Your task to perform on an android device: turn off priority inbox in the gmail app Image 0: 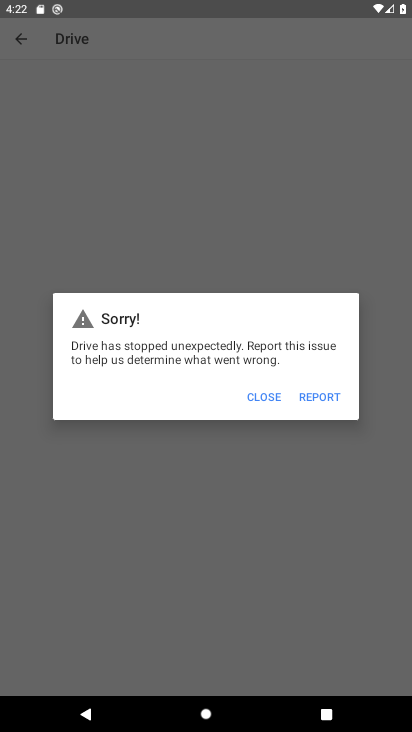
Step 0: press home button
Your task to perform on an android device: turn off priority inbox in the gmail app Image 1: 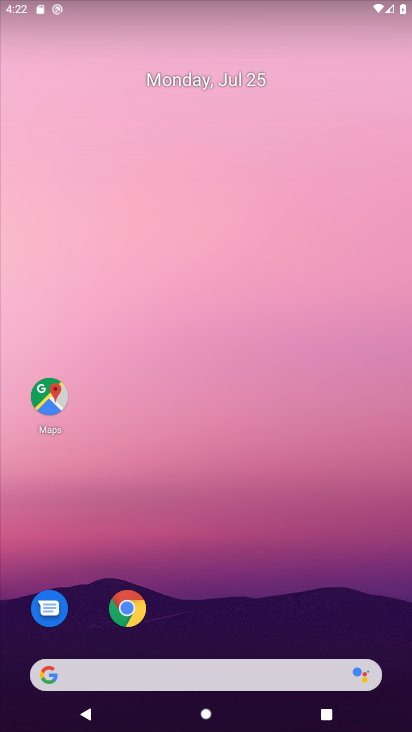
Step 1: drag from (235, 620) to (254, 160)
Your task to perform on an android device: turn off priority inbox in the gmail app Image 2: 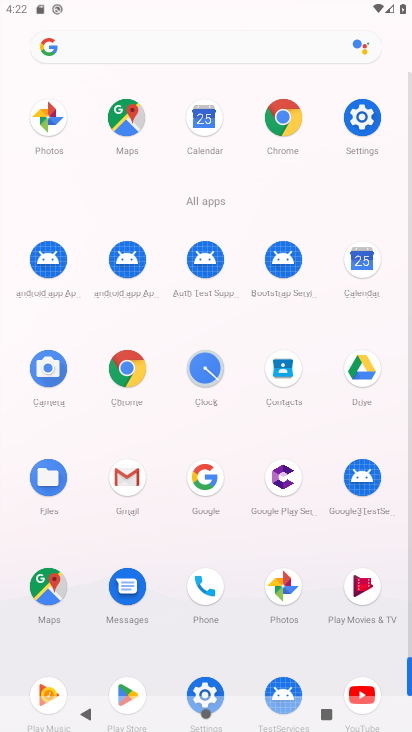
Step 2: click (130, 491)
Your task to perform on an android device: turn off priority inbox in the gmail app Image 3: 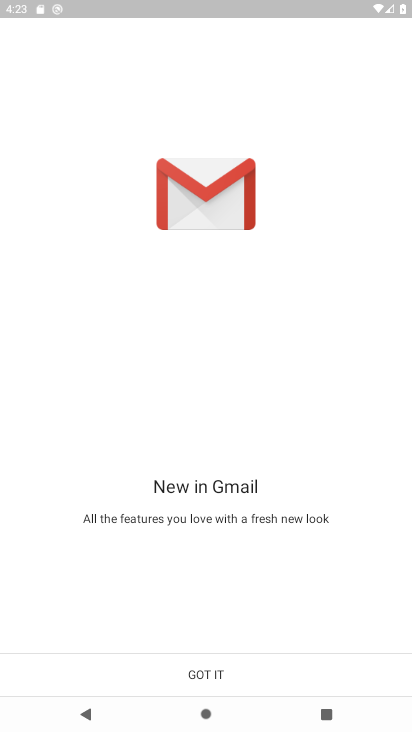
Step 3: click (242, 669)
Your task to perform on an android device: turn off priority inbox in the gmail app Image 4: 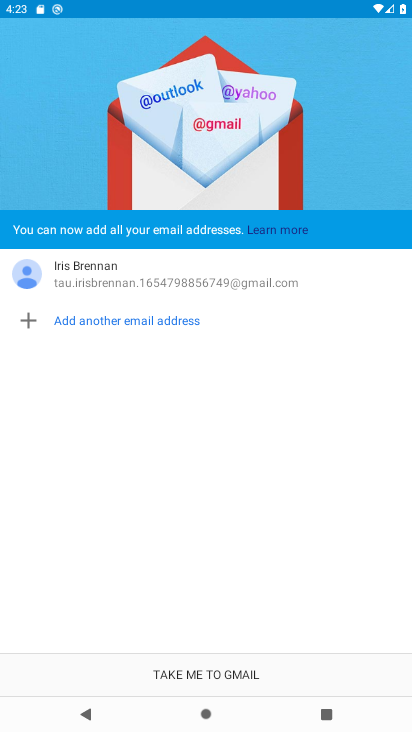
Step 4: click (243, 674)
Your task to perform on an android device: turn off priority inbox in the gmail app Image 5: 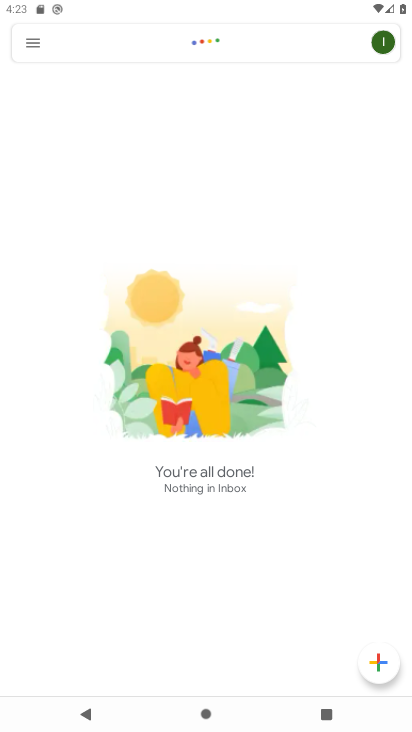
Step 5: click (40, 41)
Your task to perform on an android device: turn off priority inbox in the gmail app Image 6: 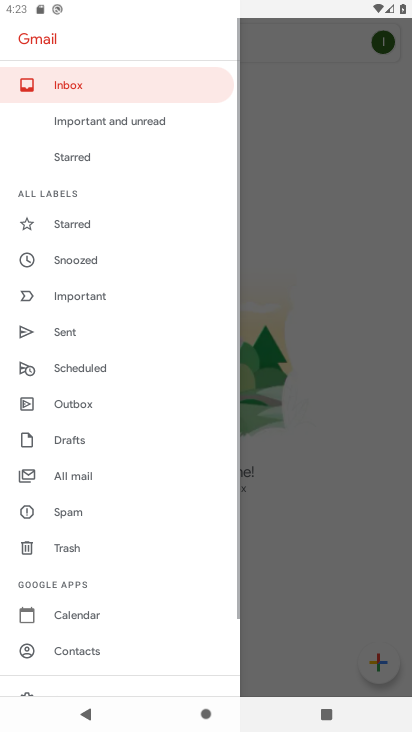
Step 6: drag from (93, 629) to (90, 212)
Your task to perform on an android device: turn off priority inbox in the gmail app Image 7: 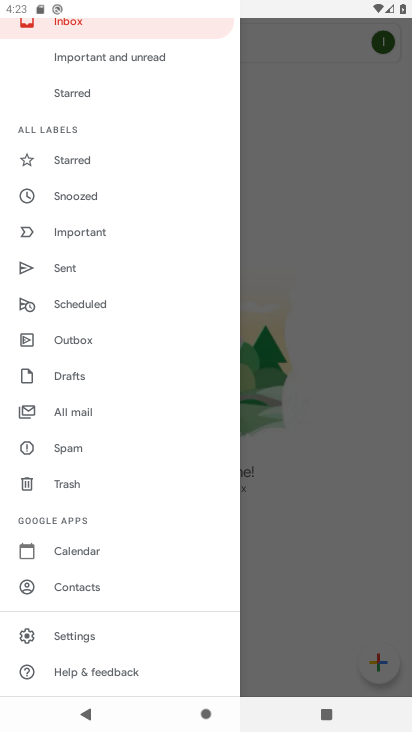
Step 7: click (81, 635)
Your task to perform on an android device: turn off priority inbox in the gmail app Image 8: 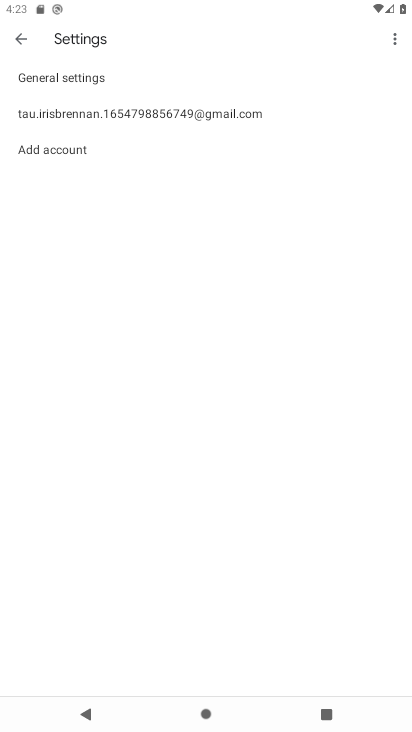
Step 8: click (117, 114)
Your task to perform on an android device: turn off priority inbox in the gmail app Image 9: 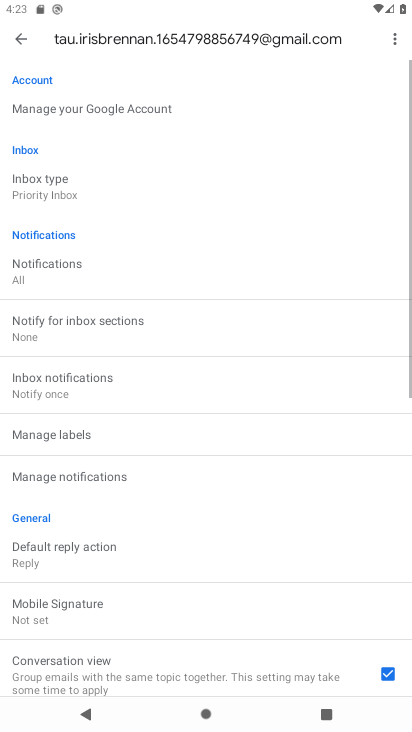
Step 9: click (108, 206)
Your task to perform on an android device: turn off priority inbox in the gmail app Image 10: 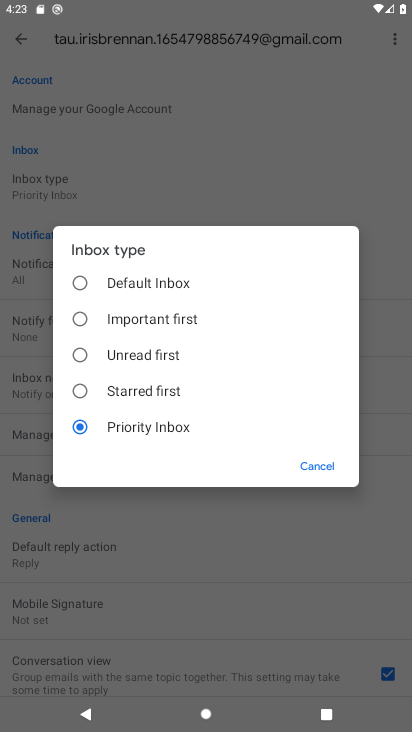
Step 10: click (119, 283)
Your task to perform on an android device: turn off priority inbox in the gmail app Image 11: 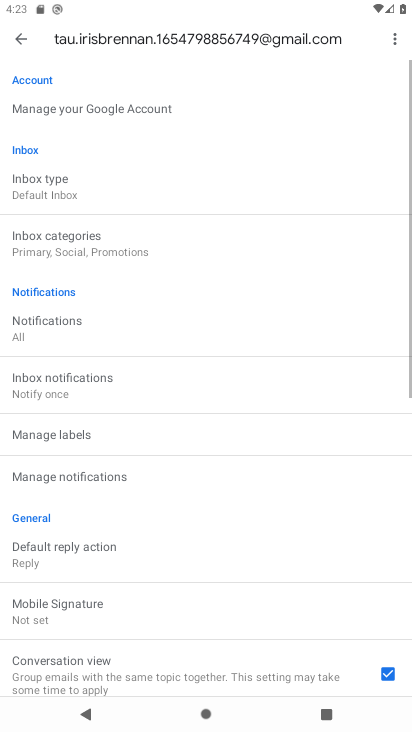
Step 11: task complete